Your task to perform on an android device: make emails show in primary in the gmail app Image 0: 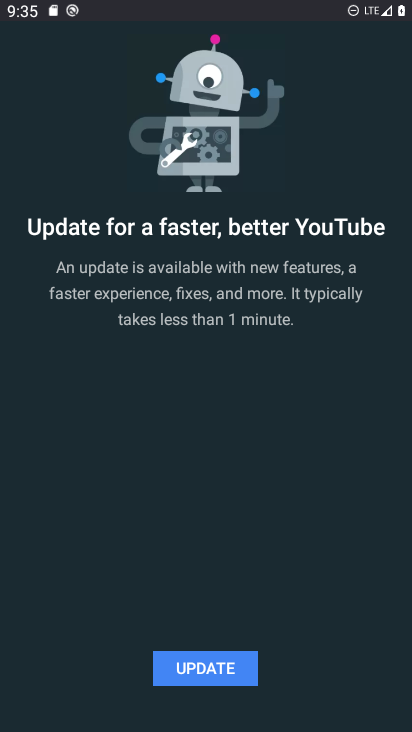
Step 0: press home button
Your task to perform on an android device: make emails show in primary in the gmail app Image 1: 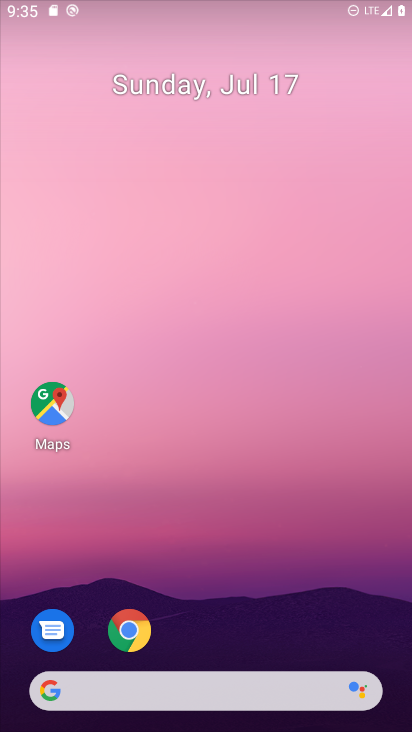
Step 1: drag from (296, 646) to (294, 307)
Your task to perform on an android device: make emails show in primary in the gmail app Image 2: 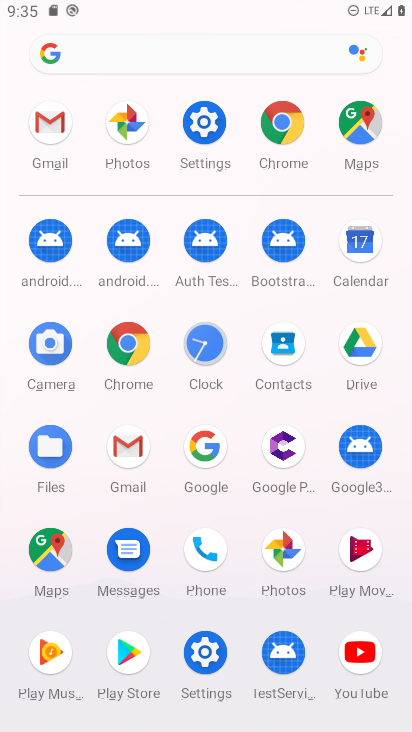
Step 2: click (45, 142)
Your task to perform on an android device: make emails show in primary in the gmail app Image 3: 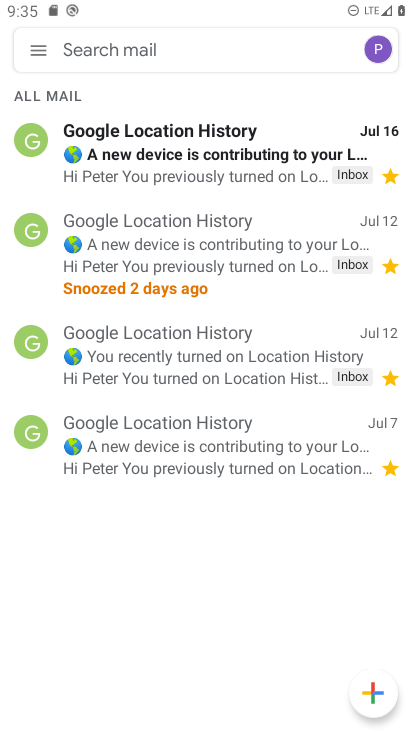
Step 3: click (39, 48)
Your task to perform on an android device: make emails show in primary in the gmail app Image 4: 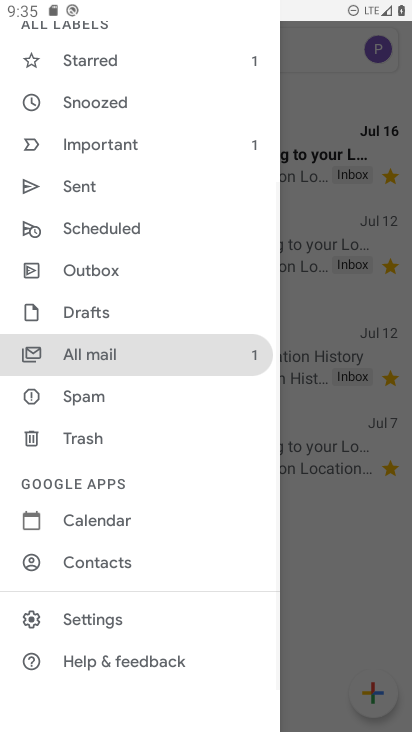
Step 4: click (116, 628)
Your task to perform on an android device: make emails show in primary in the gmail app Image 5: 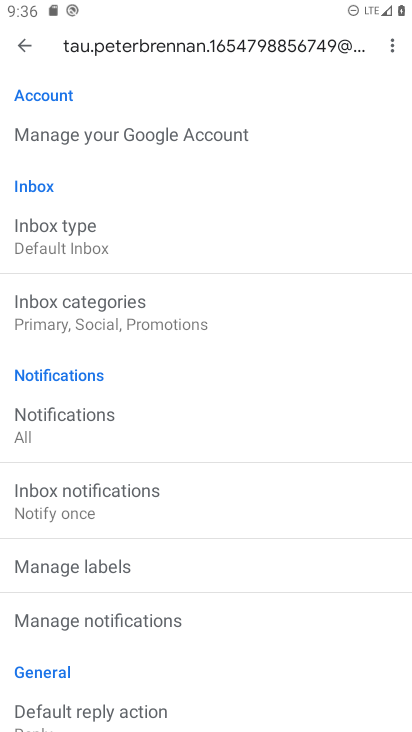
Step 5: click (41, 241)
Your task to perform on an android device: make emails show in primary in the gmail app Image 6: 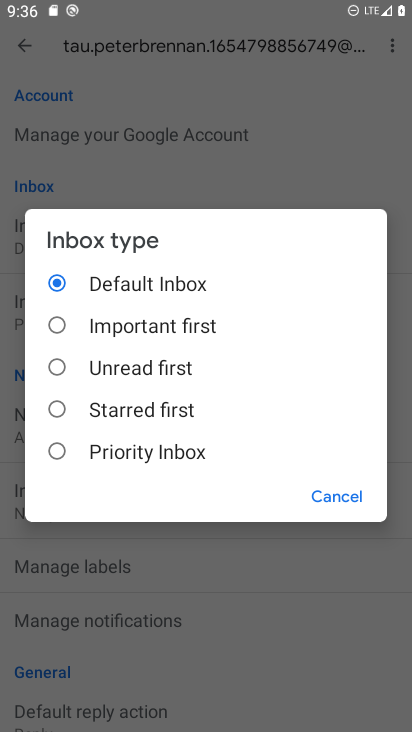
Step 6: click (233, 140)
Your task to perform on an android device: make emails show in primary in the gmail app Image 7: 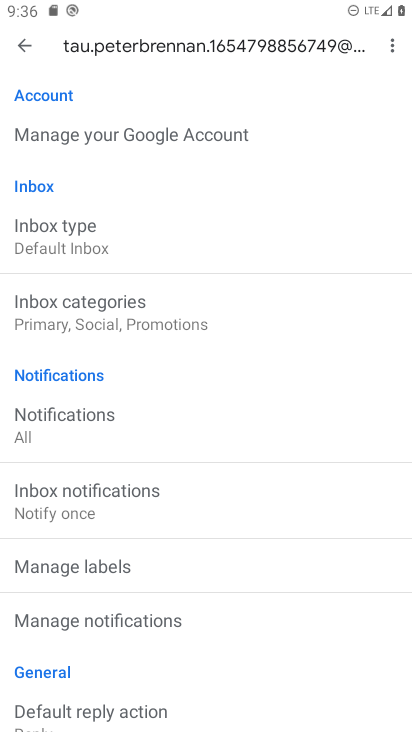
Step 7: click (94, 320)
Your task to perform on an android device: make emails show in primary in the gmail app Image 8: 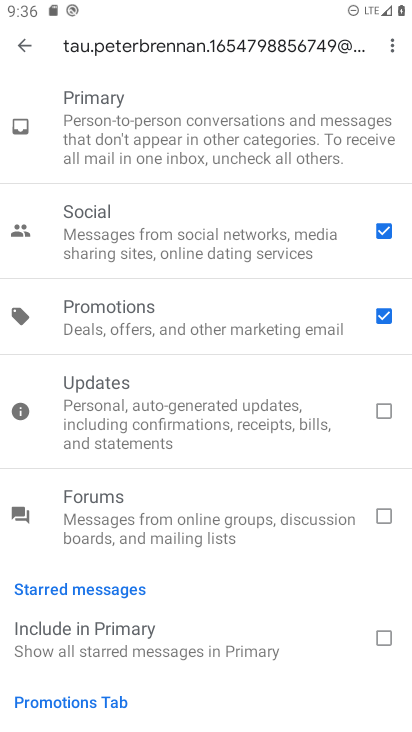
Step 8: click (297, 144)
Your task to perform on an android device: make emails show in primary in the gmail app Image 9: 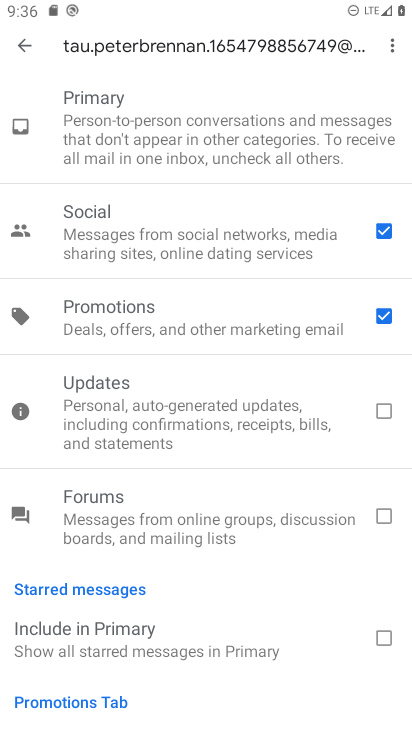
Step 9: task complete